Your task to perform on an android device: toggle priority inbox in the gmail app Image 0: 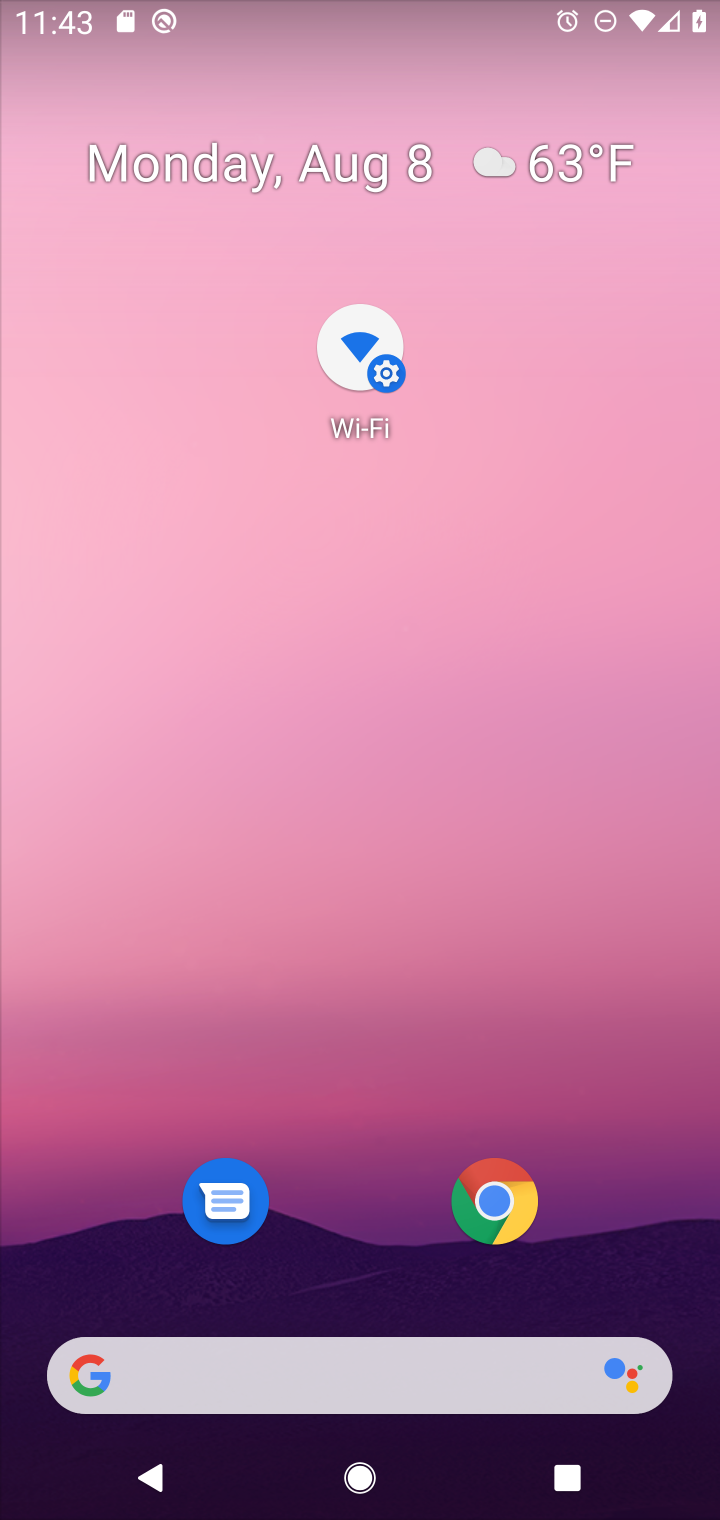
Step 0: press home button
Your task to perform on an android device: toggle priority inbox in the gmail app Image 1: 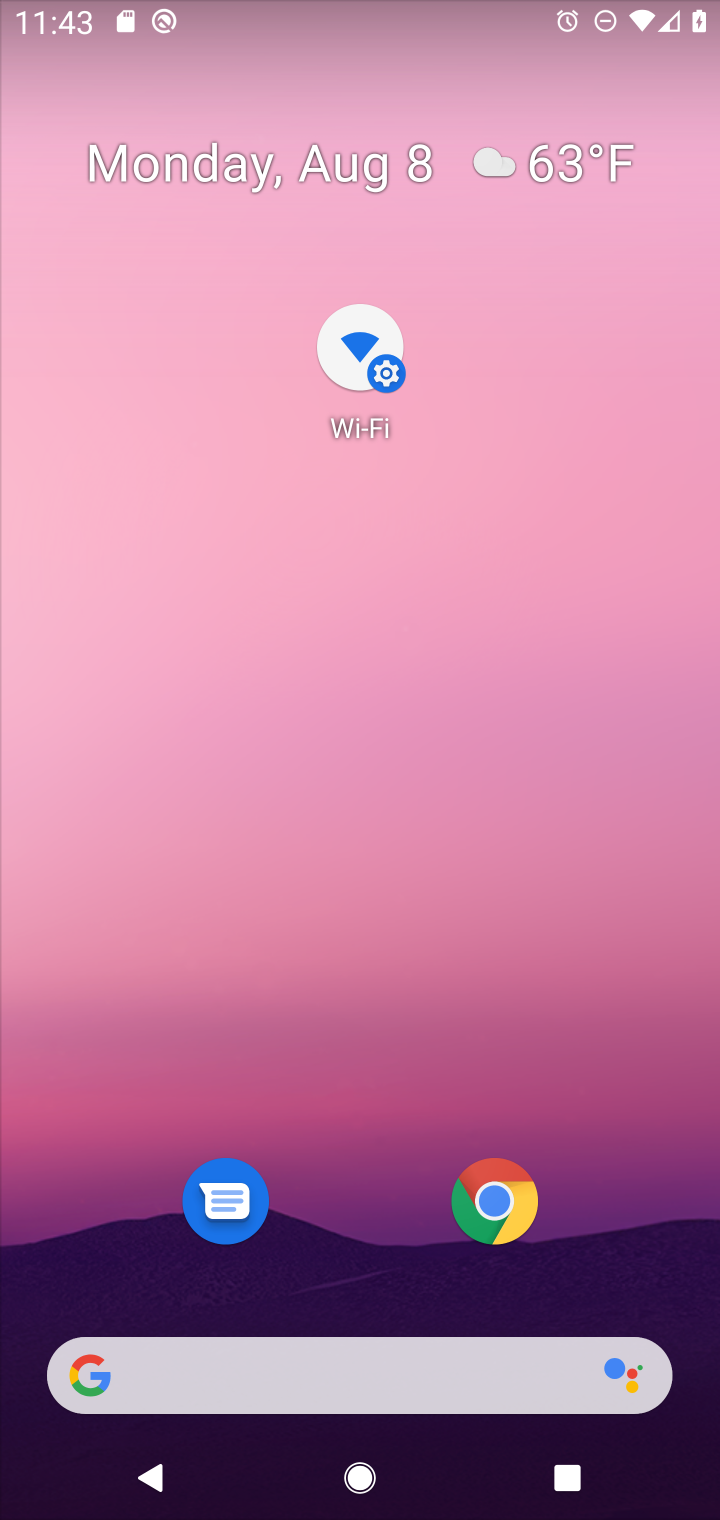
Step 1: drag from (619, 1125) to (658, 166)
Your task to perform on an android device: toggle priority inbox in the gmail app Image 2: 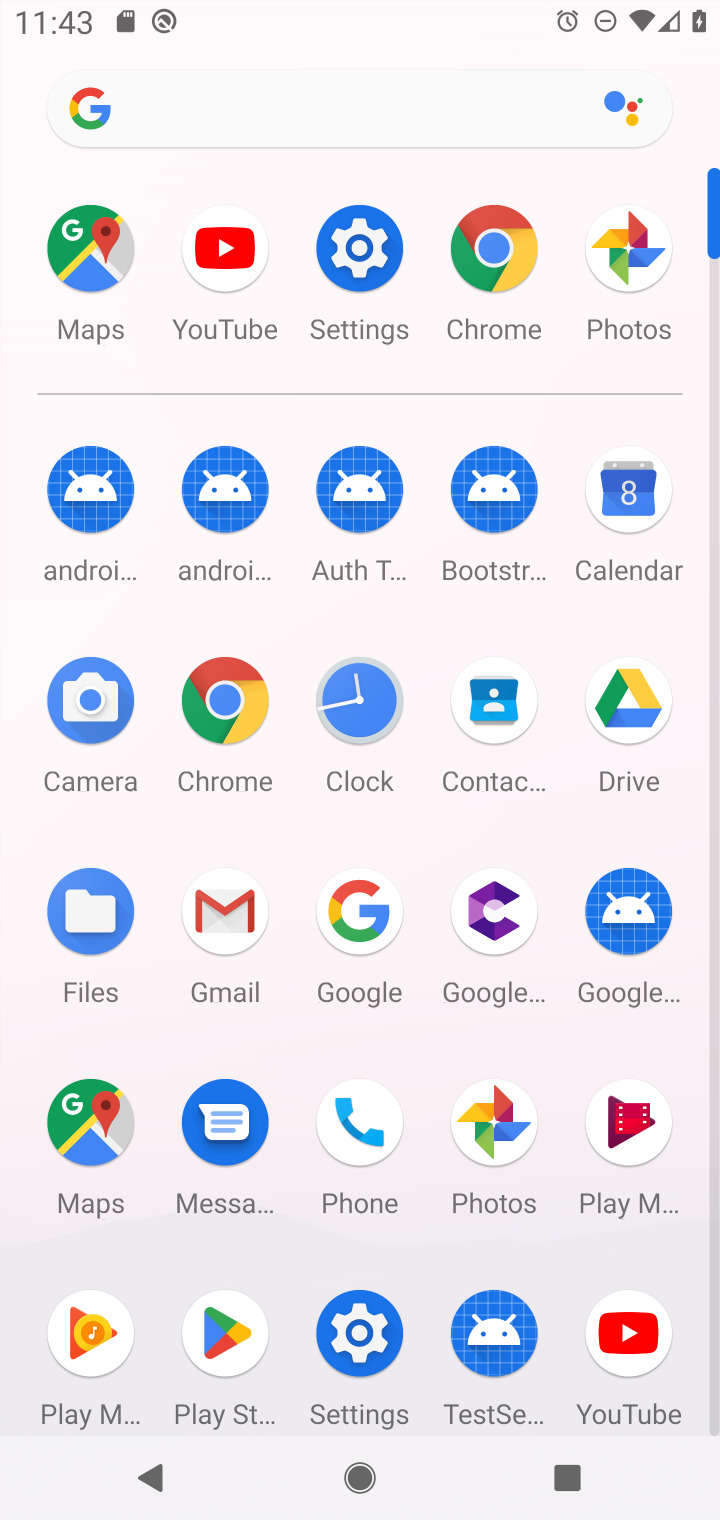
Step 2: click (228, 924)
Your task to perform on an android device: toggle priority inbox in the gmail app Image 3: 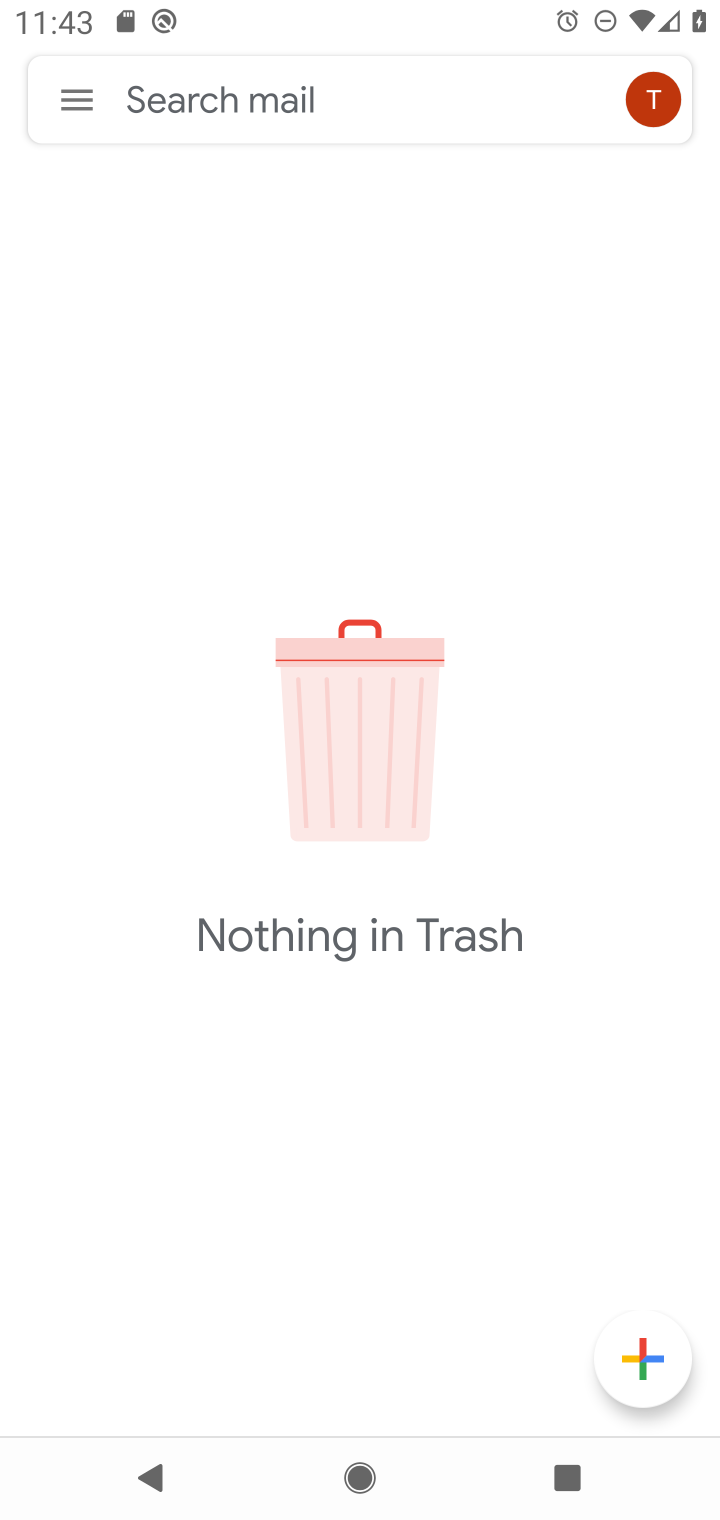
Step 3: click (77, 94)
Your task to perform on an android device: toggle priority inbox in the gmail app Image 4: 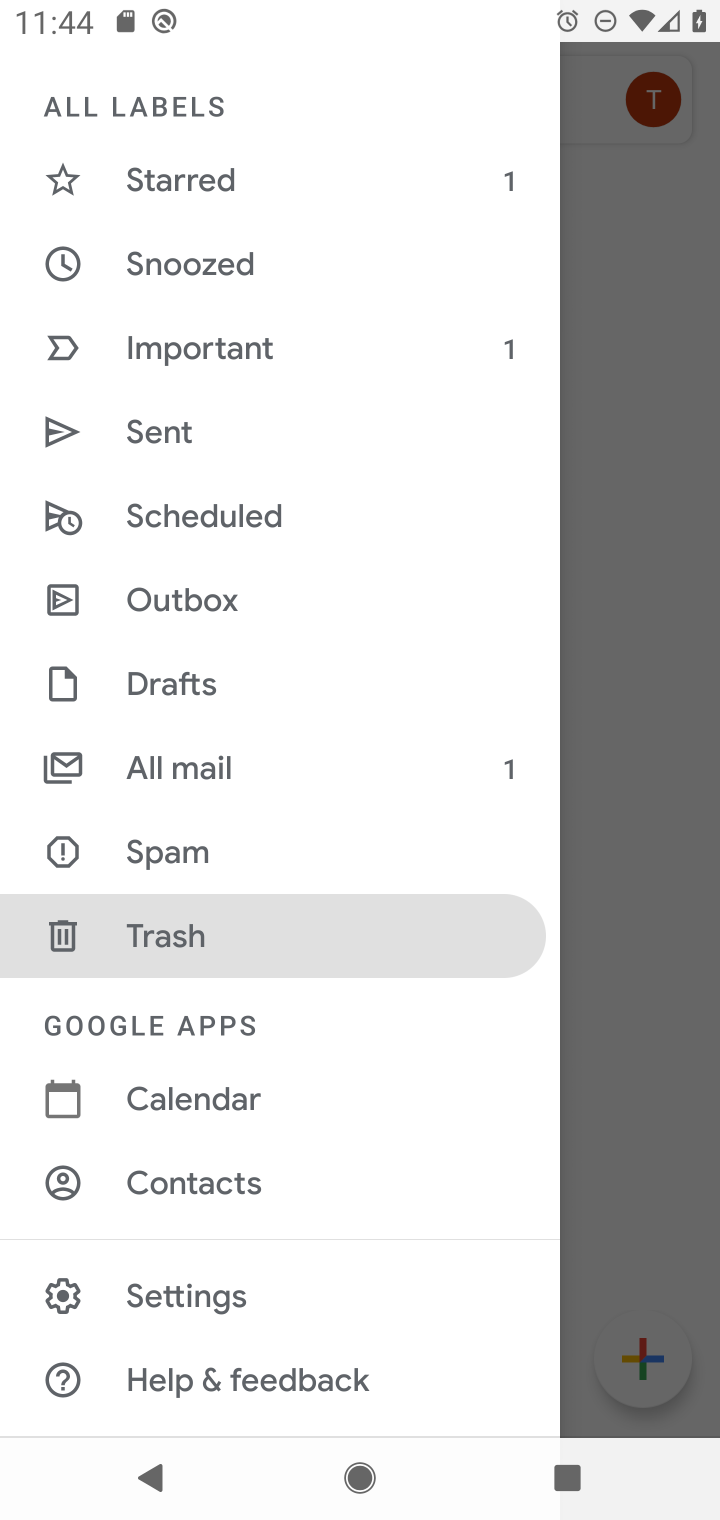
Step 4: drag from (407, 1177) to (405, 730)
Your task to perform on an android device: toggle priority inbox in the gmail app Image 5: 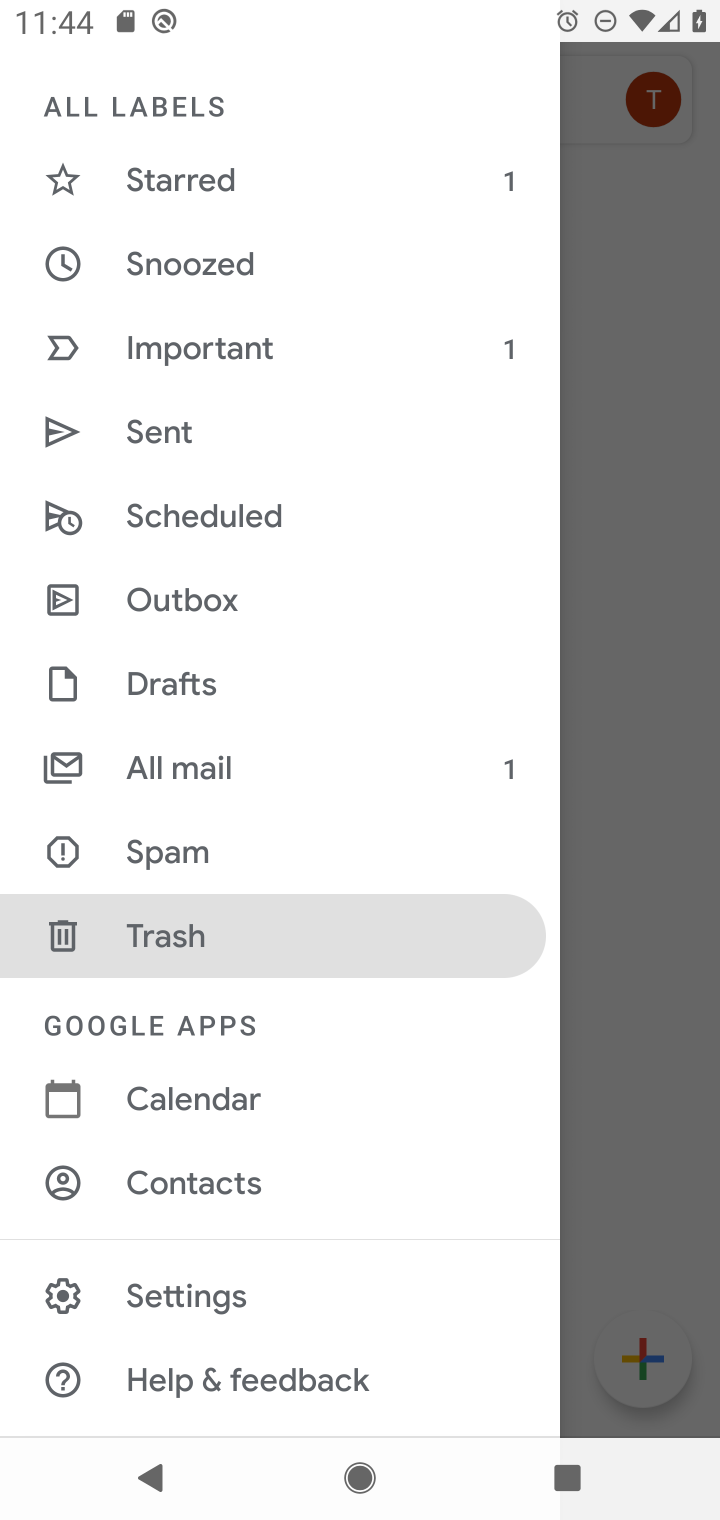
Step 5: click (315, 1301)
Your task to perform on an android device: toggle priority inbox in the gmail app Image 6: 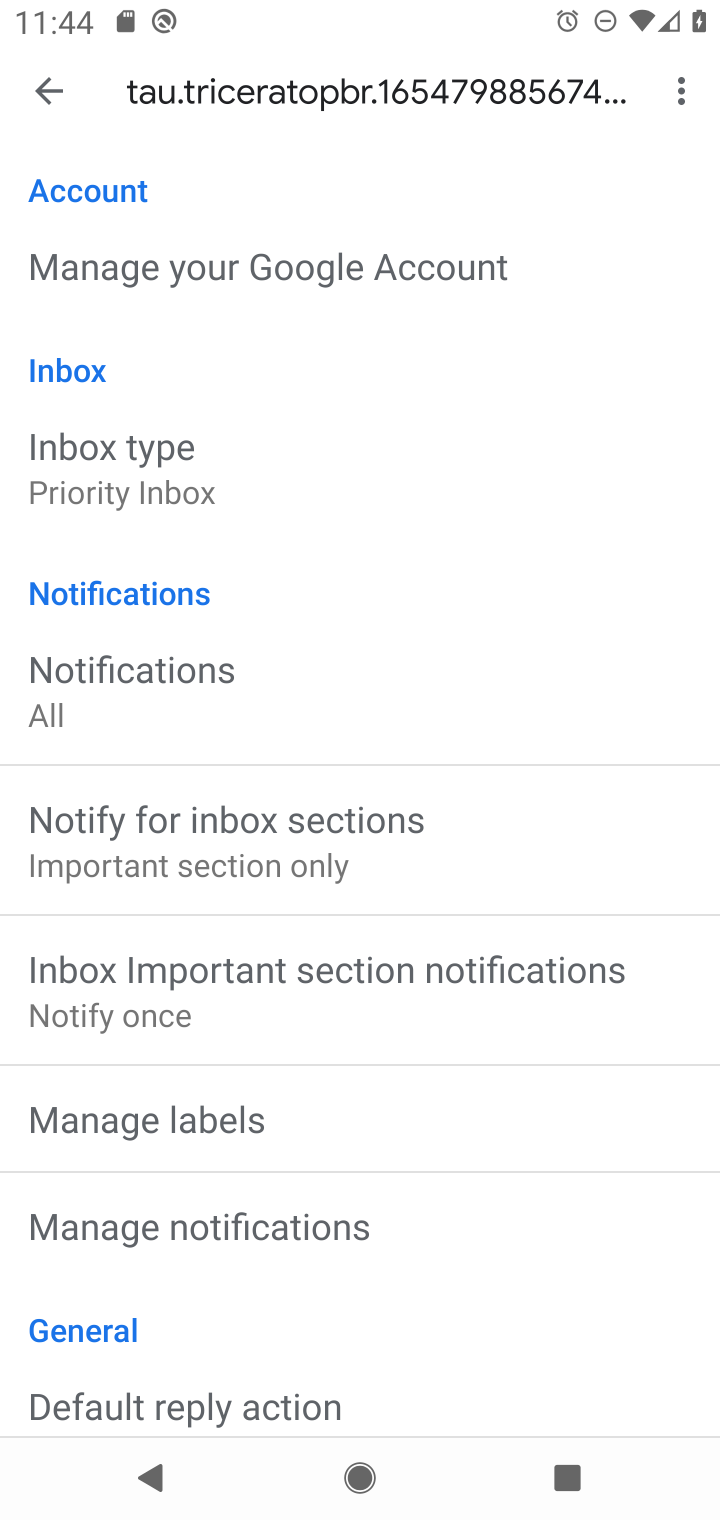
Step 6: drag from (521, 1273) to (547, 733)
Your task to perform on an android device: toggle priority inbox in the gmail app Image 7: 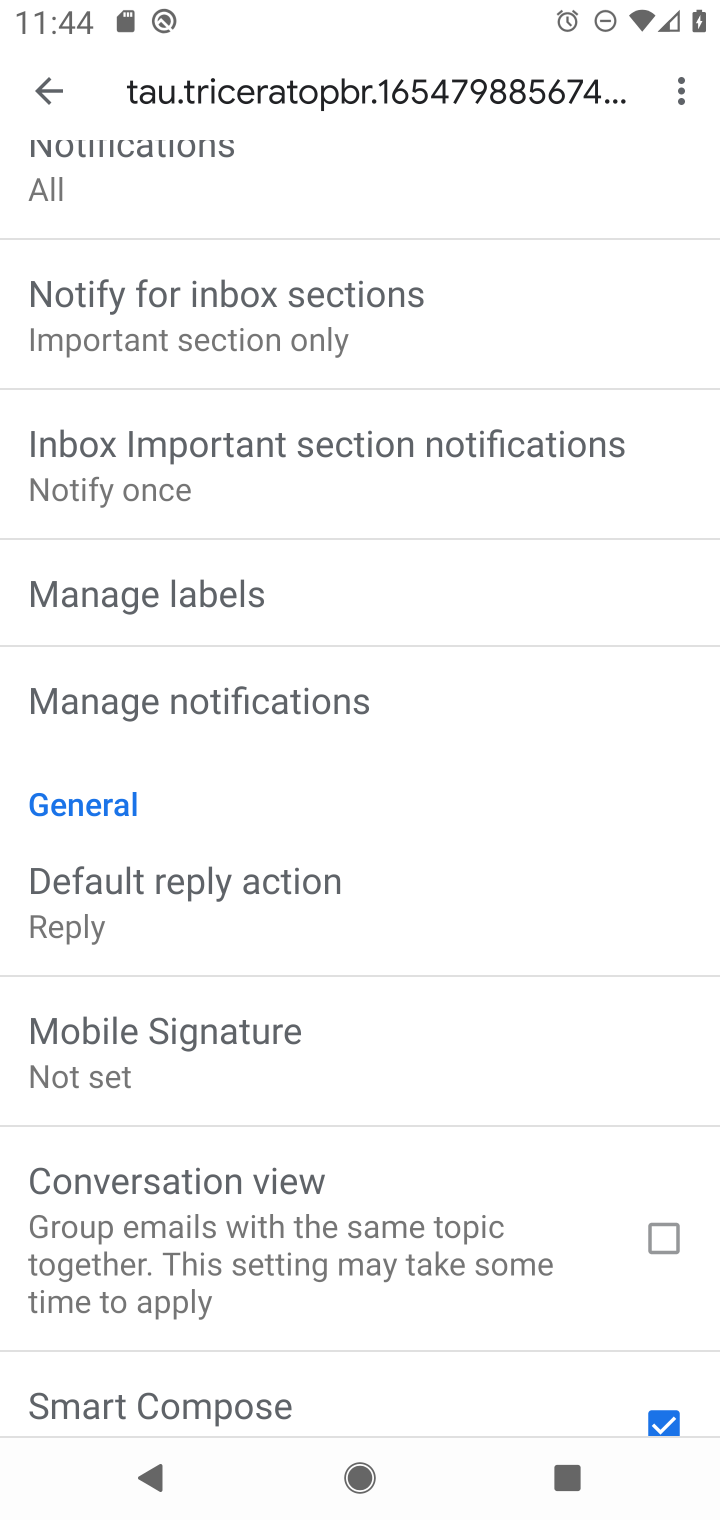
Step 7: drag from (475, 1170) to (537, 670)
Your task to perform on an android device: toggle priority inbox in the gmail app Image 8: 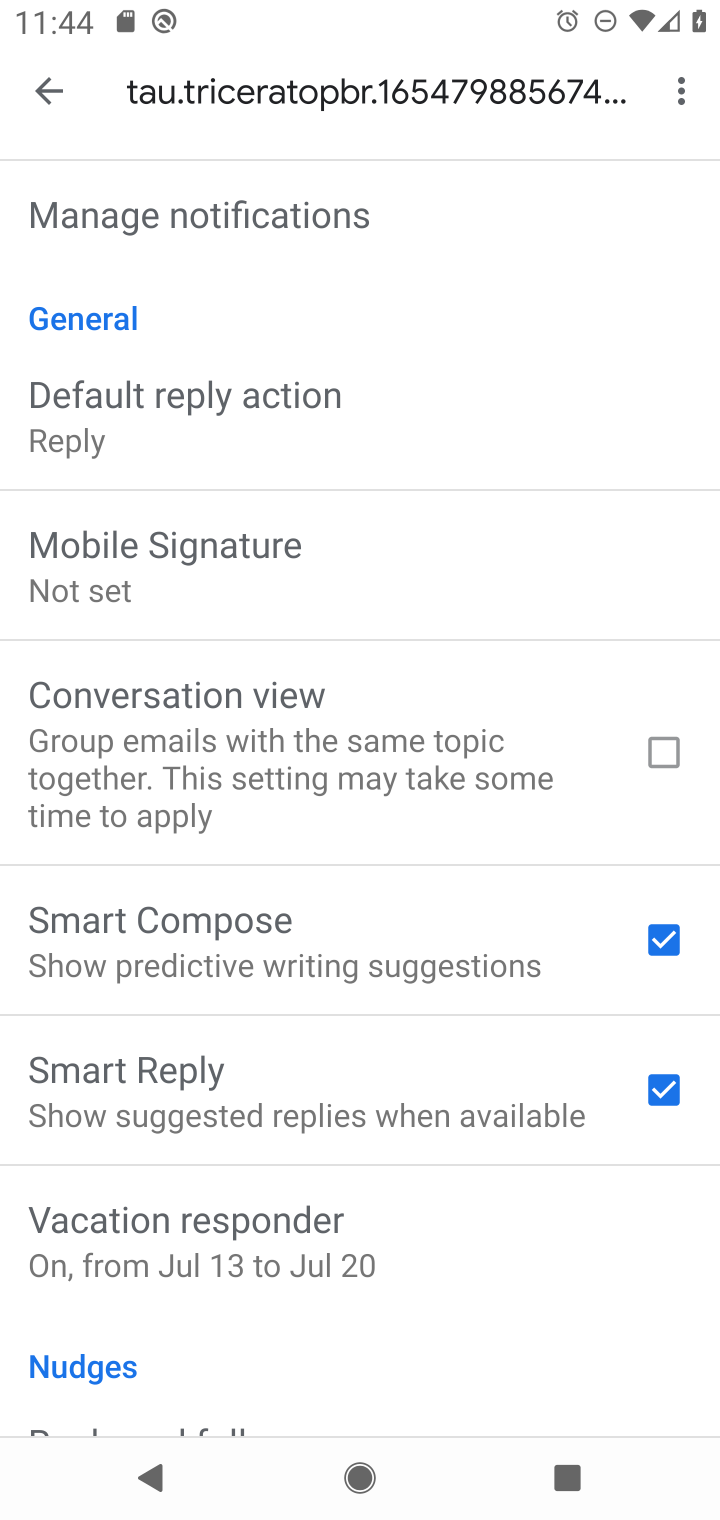
Step 8: drag from (439, 1215) to (457, 700)
Your task to perform on an android device: toggle priority inbox in the gmail app Image 9: 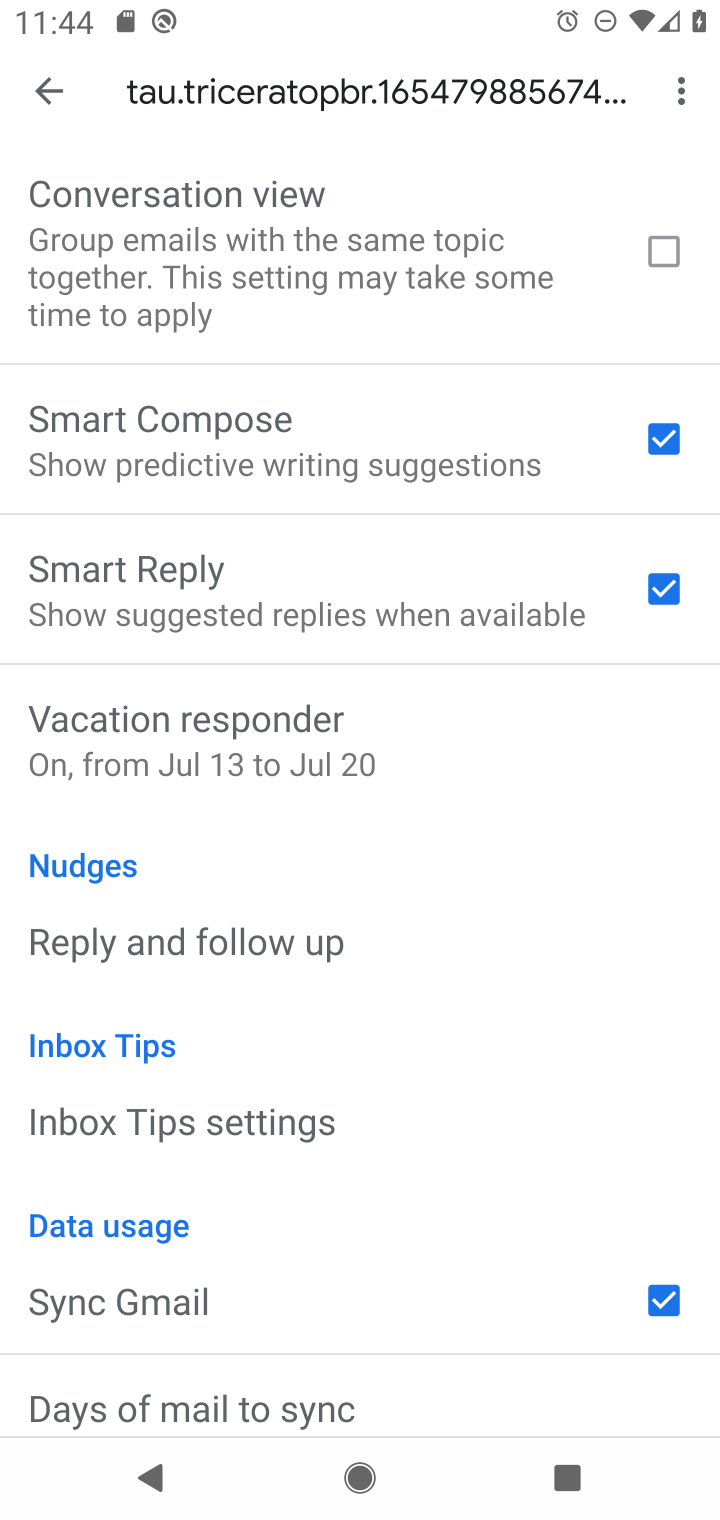
Step 9: drag from (495, 356) to (517, 691)
Your task to perform on an android device: toggle priority inbox in the gmail app Image 10: 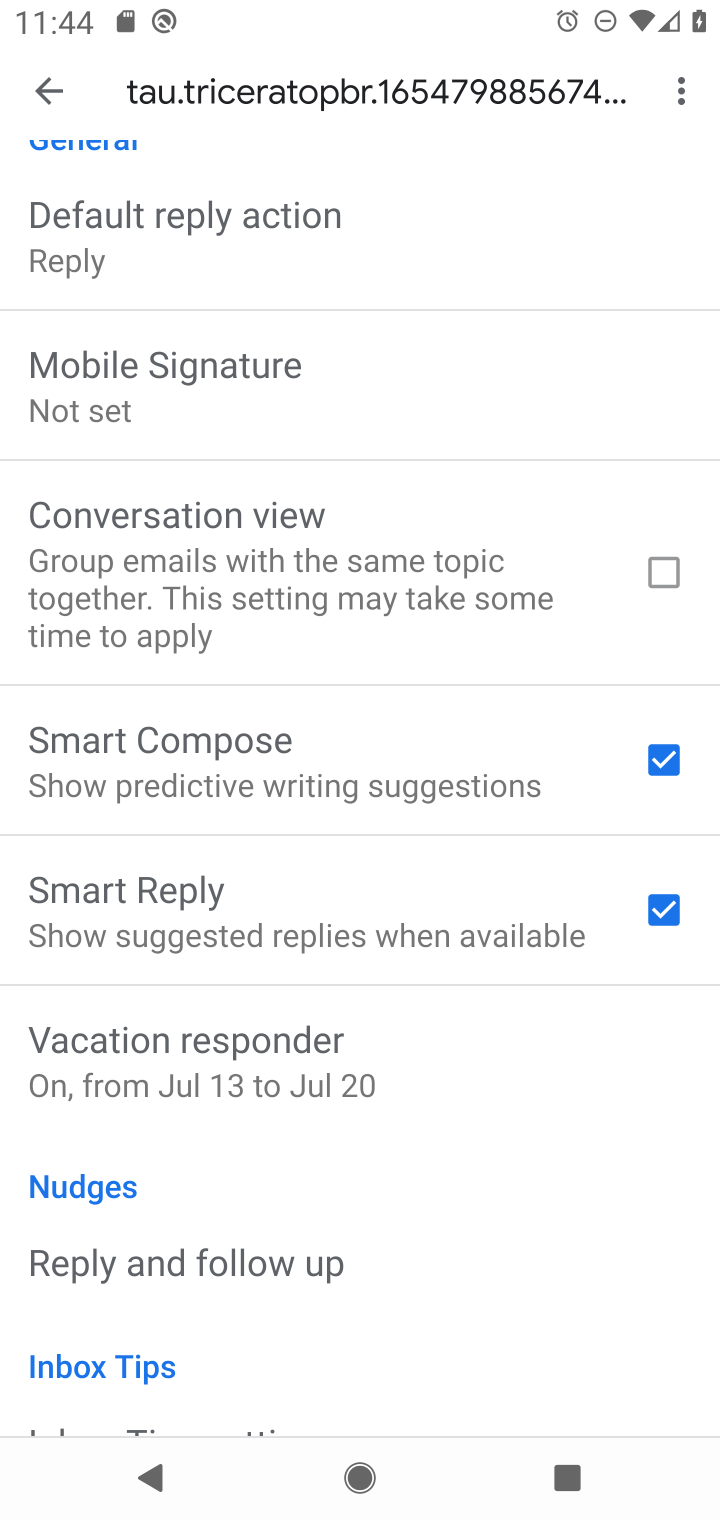
Step 10: drag from (517, 378) to (522, 710)
Your task to perform on an android device: toggle priority inbox in the gmail app Image 11: 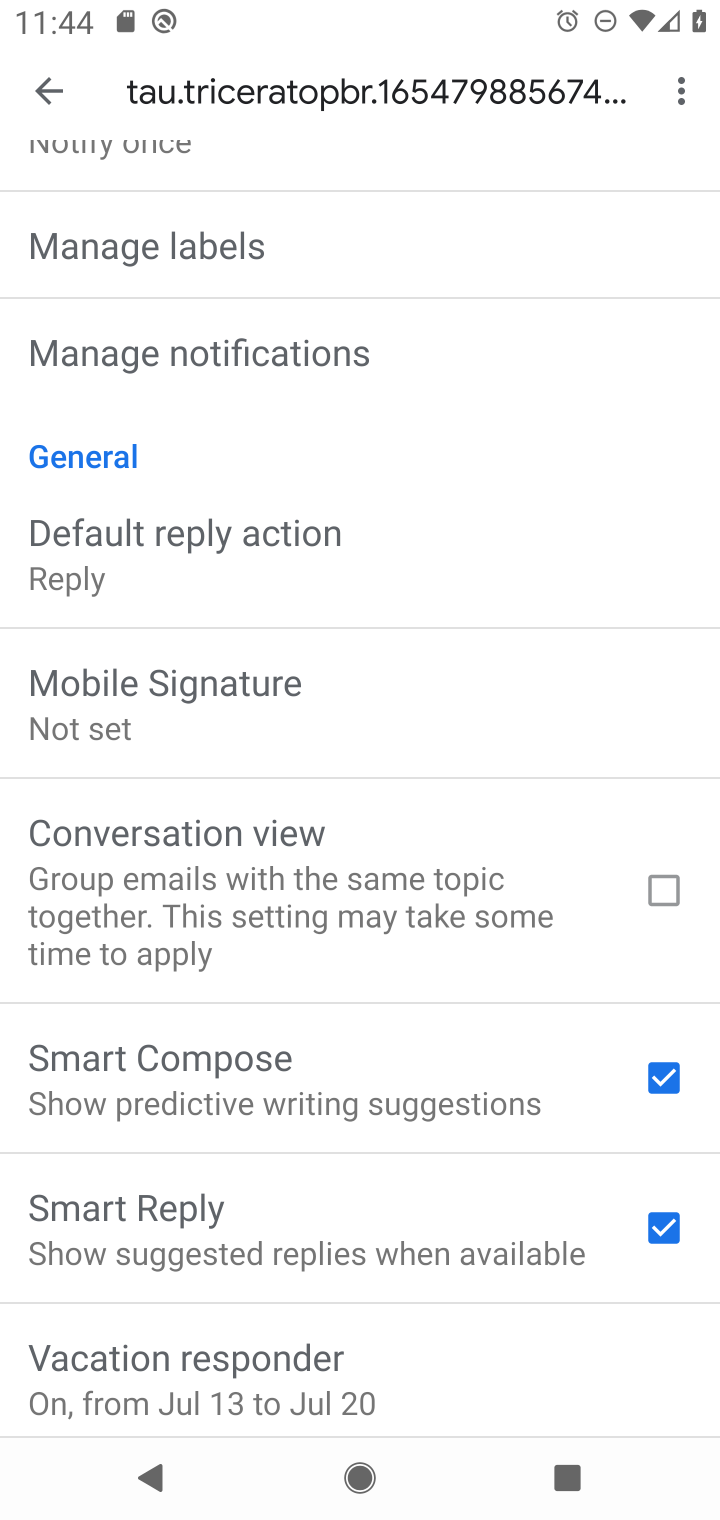
Step 11: drag from (519, 353) to (501, 686)
Your task to perform on an android device: toggle priority inbox in the gmail app Image 12: 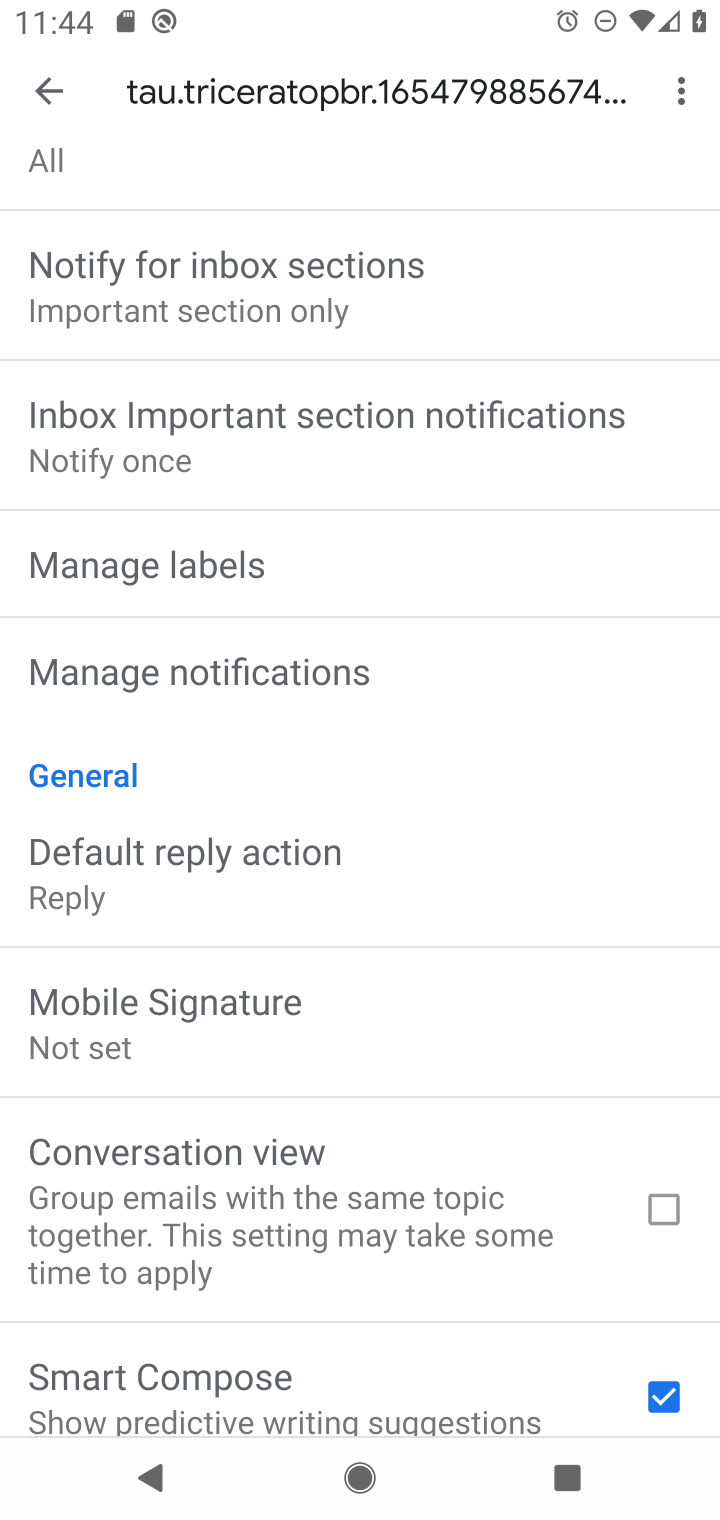
Step 12: drag from (495, 220) to (500, 618)
Your task to perform on an android device: toggle priority inbox in the gmail app Image 13: 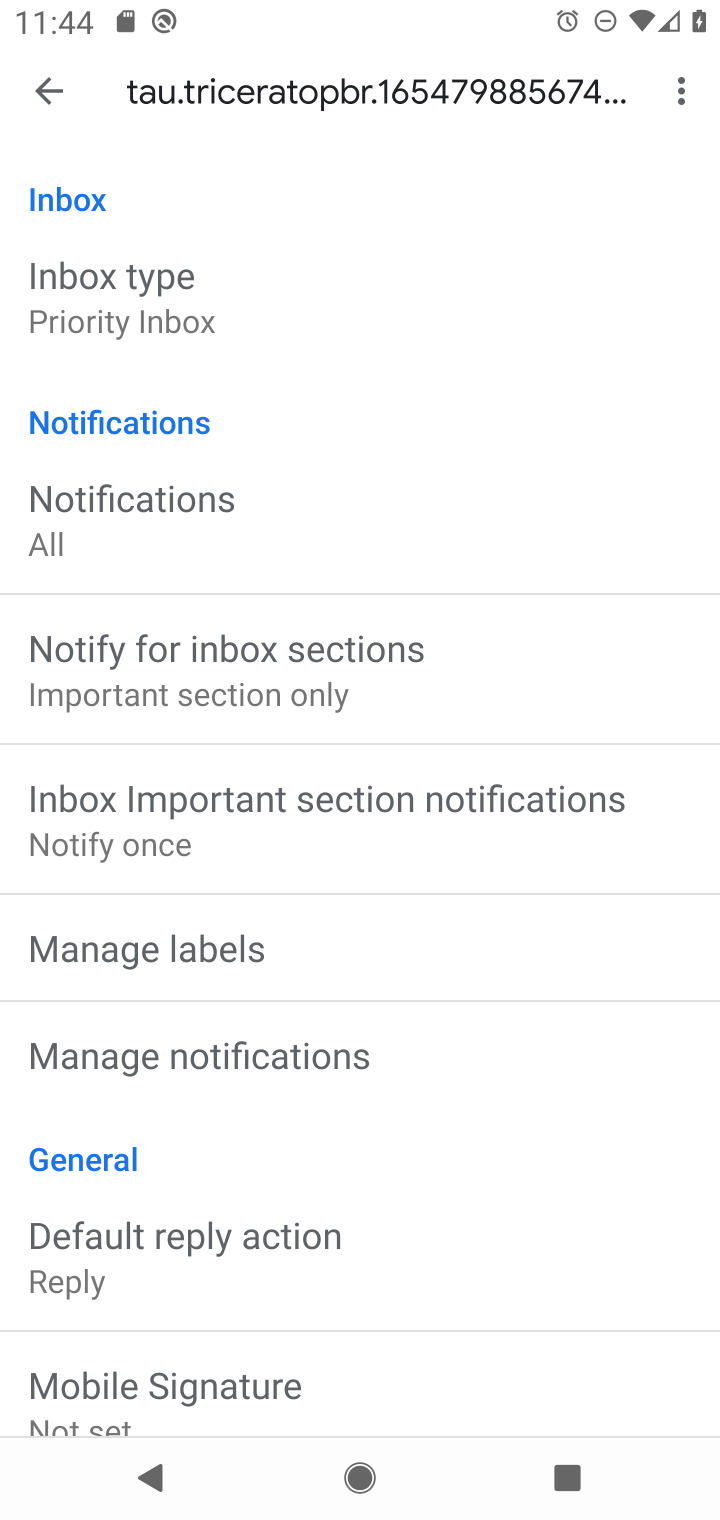
Step 13: drag from (457, 249) to (459, 649)
Your task to perform on an android device: toggle priority inbox in the gmail app Image 14: 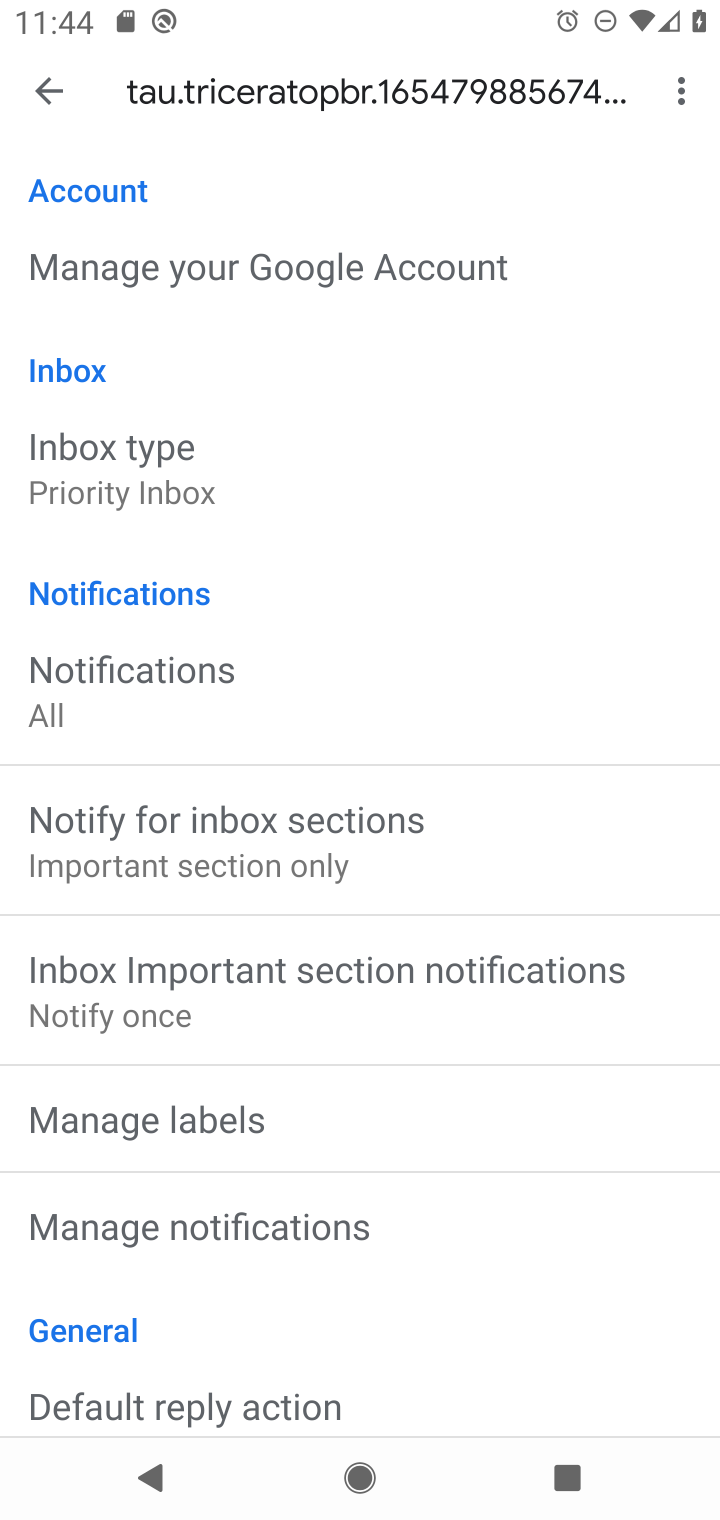
Step 14: press home button
Your task to perform on an android device: toggle priority inbox in the gmail app Image 15: 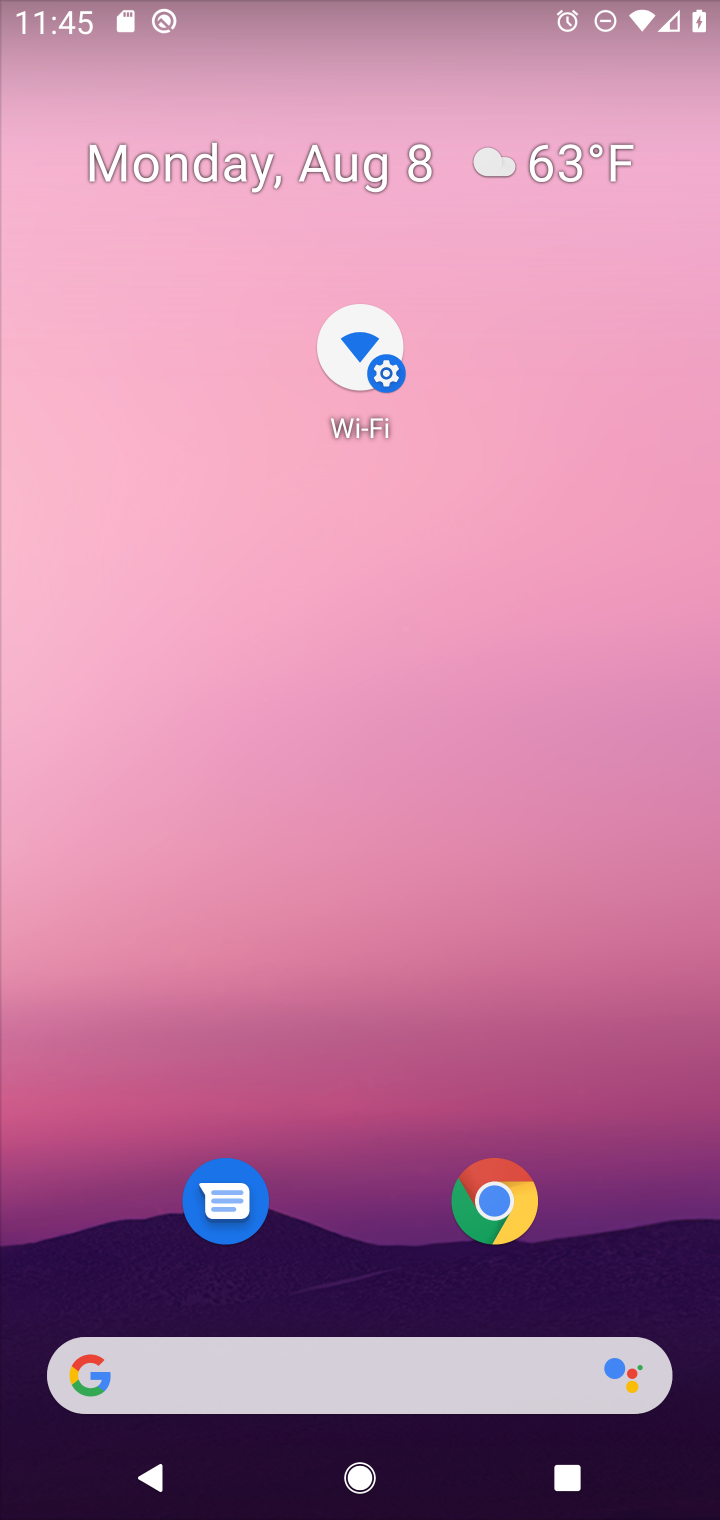
Step 15: drag from (448, 955) to (583, 159)
Your task to perform on an android device: toggle priority inbox in the gmail app Image 16: 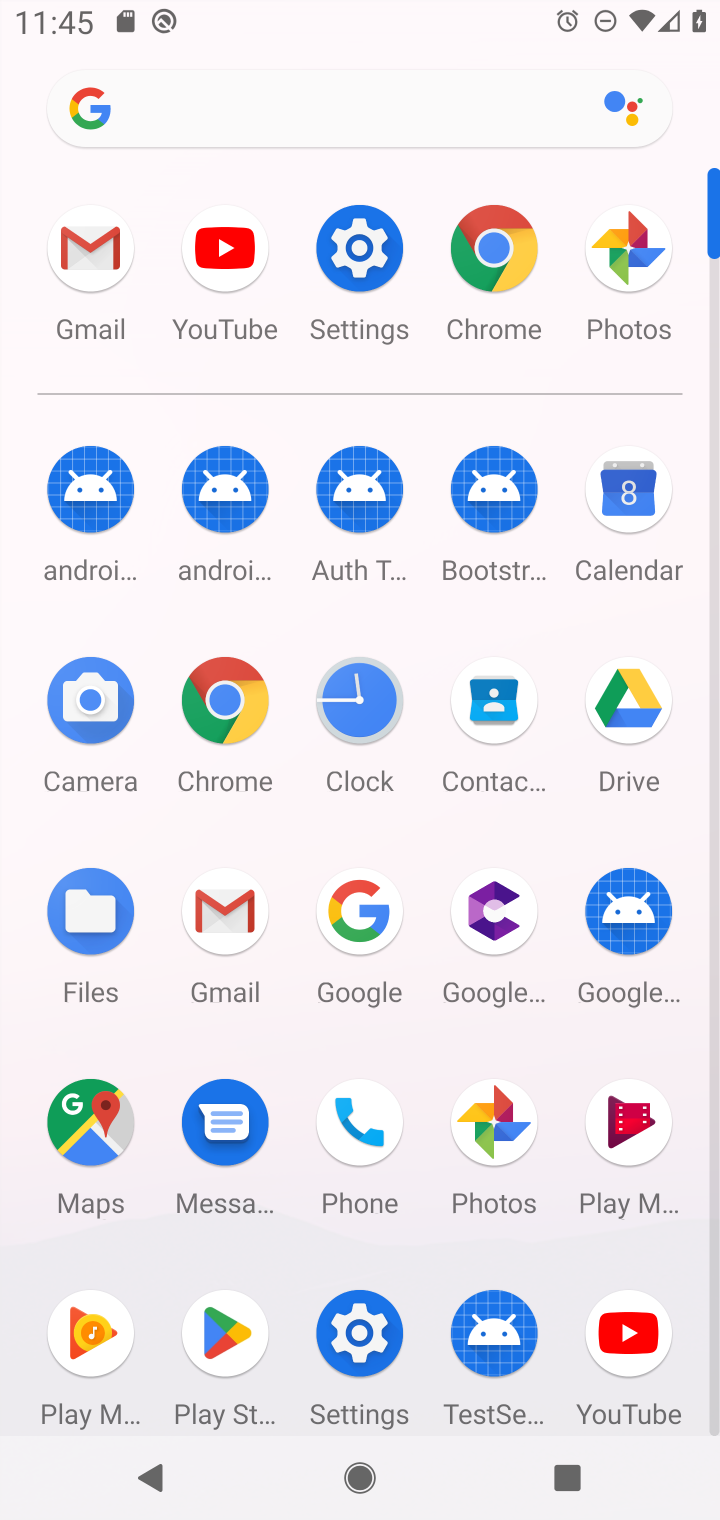
Step 16: click (234, 908)
Your task to perform on an android device: toggle priority inbox in the gmail app Image 17: 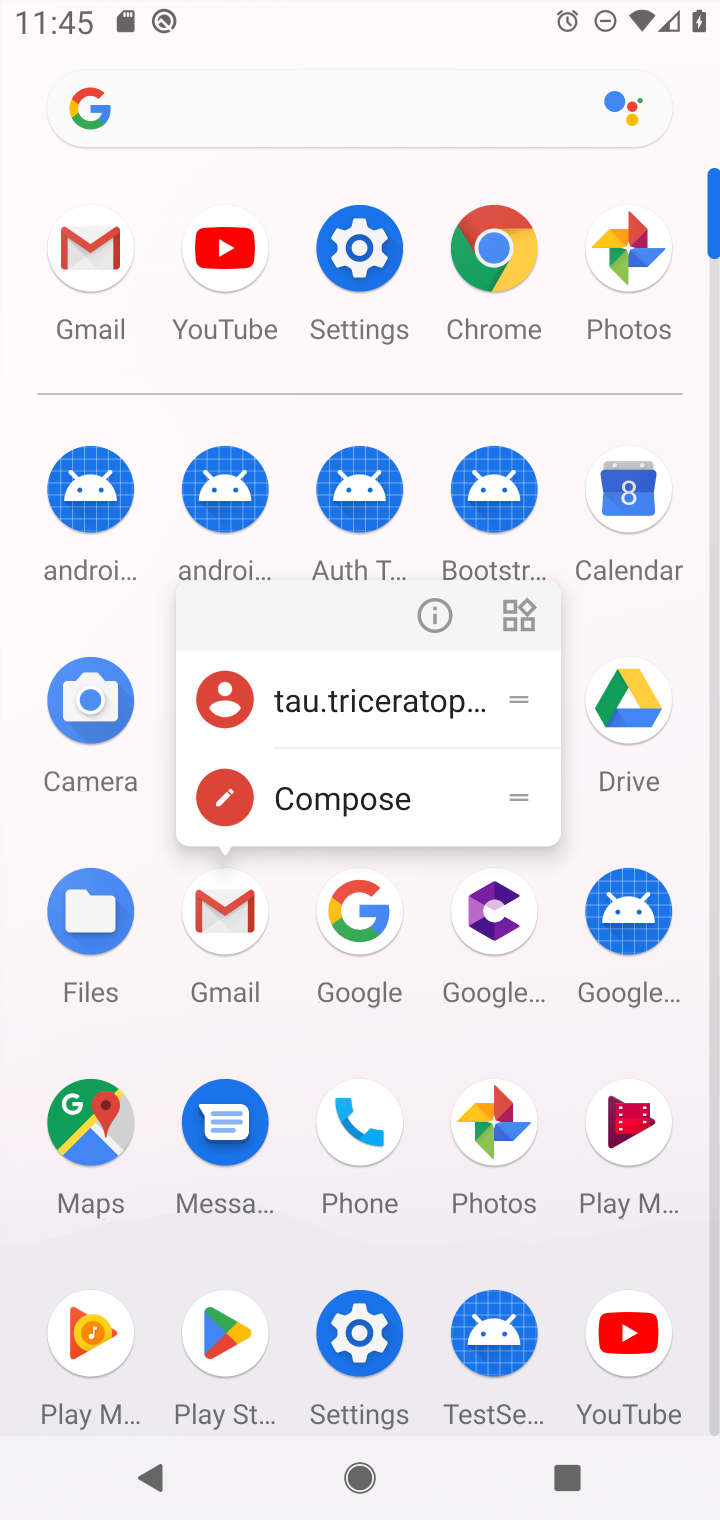
Step 17: click (205, 902)
Your task to perform on an android device: toggle priority inbox in the gmail app Image 18: 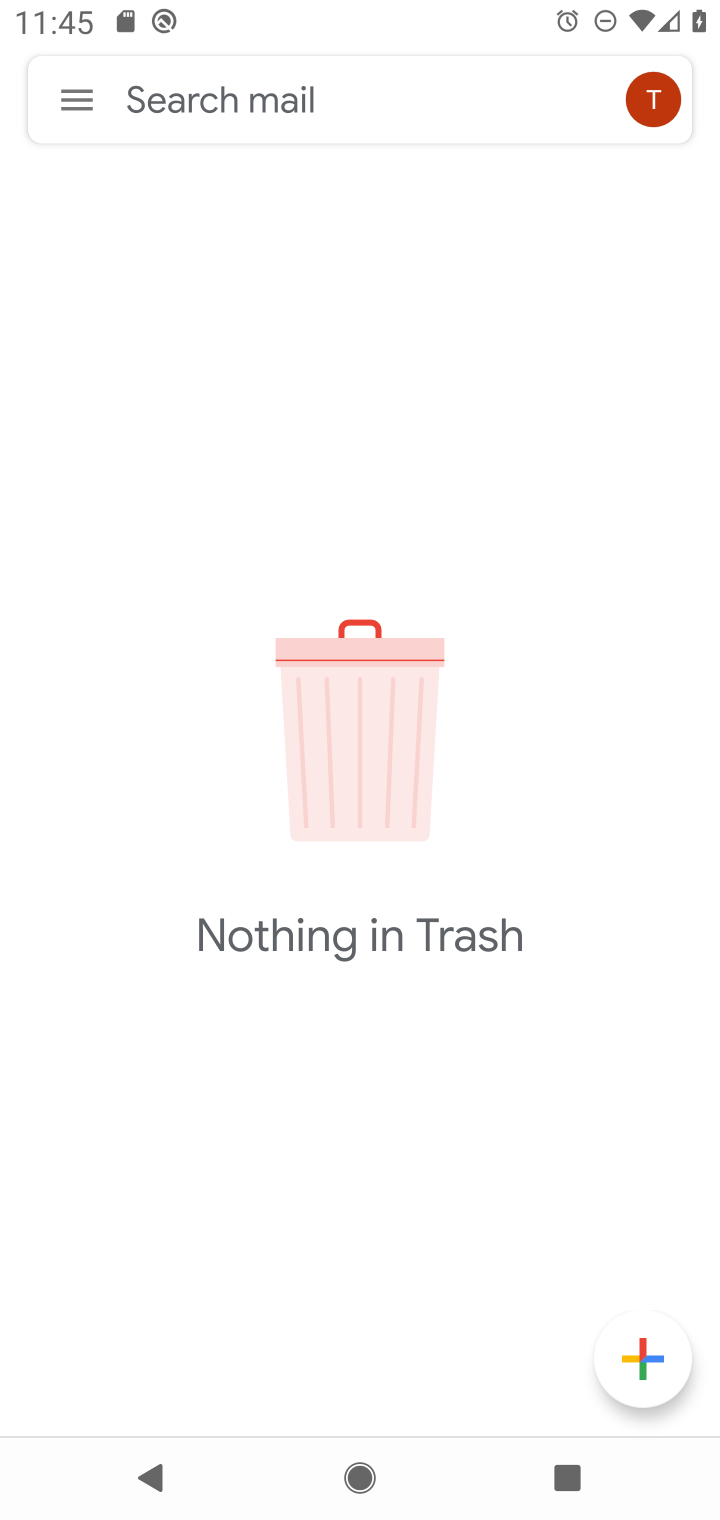
Step 18: click (79, 83)
Your task to perform on an android device: toggle priority inbox in the gmail app Image 19: 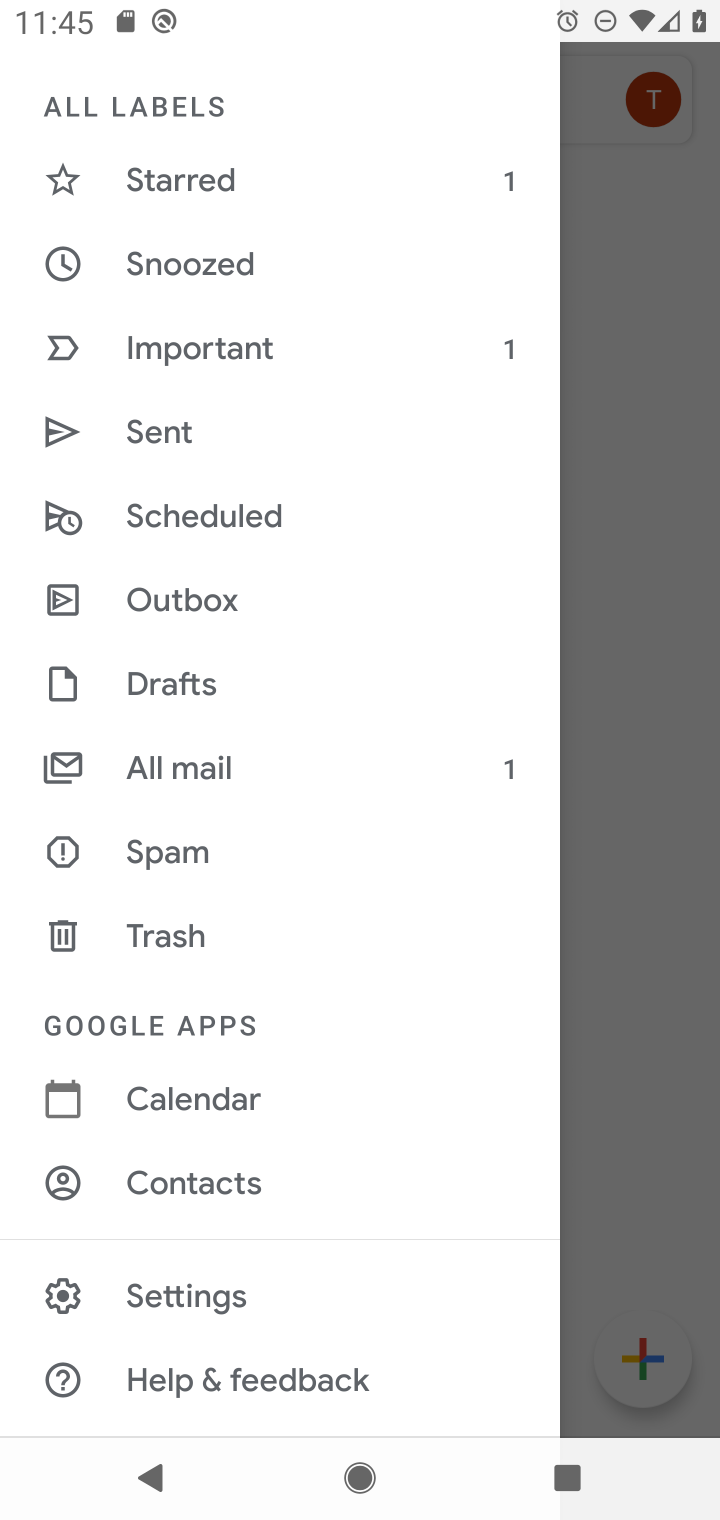
Step 19: drag from (364, 1103) to (372, 659)
Your task to perform on an android device: toggle priority inbox in the gmail app Image 20: 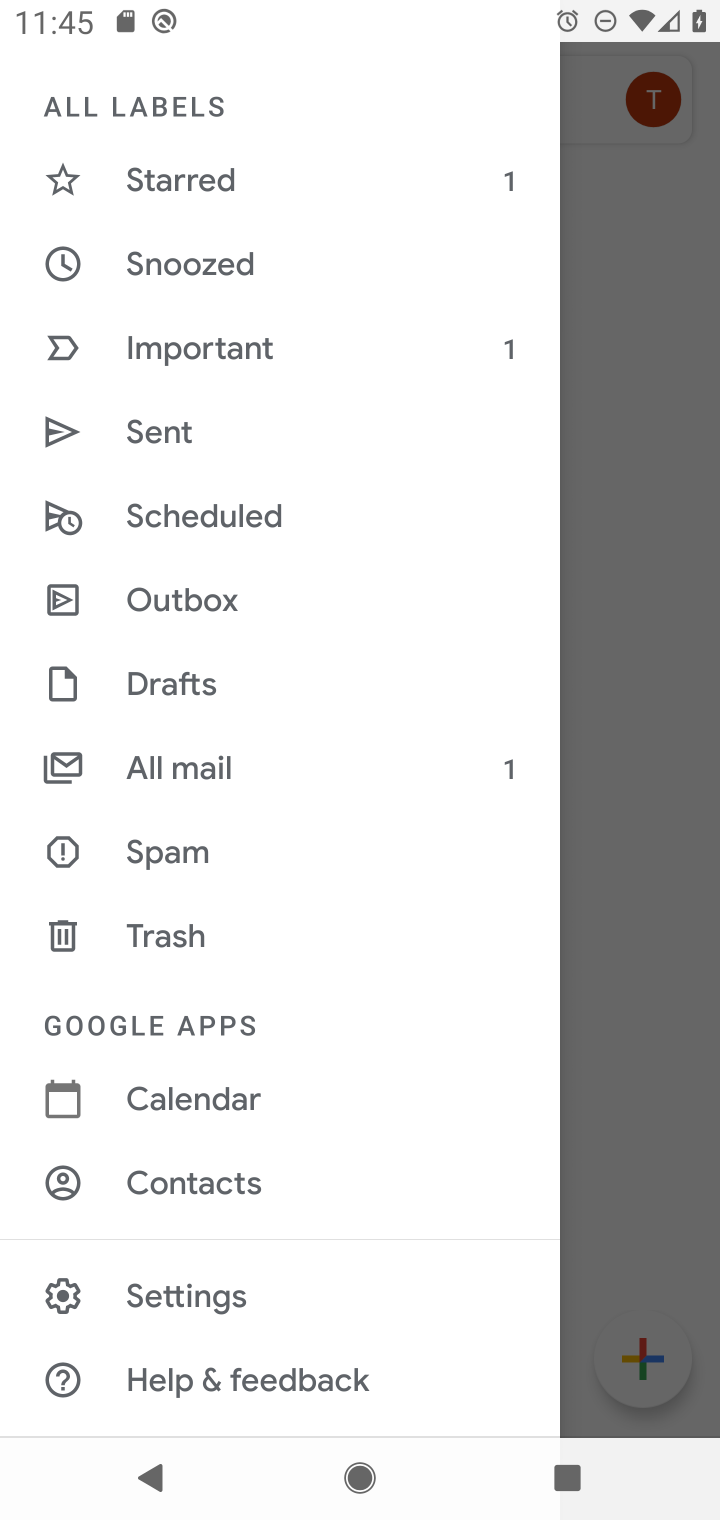
Step 20: click (251, 1285)
Your task to perform on an android device: toggle priority inbox in the gmail app Image 21: 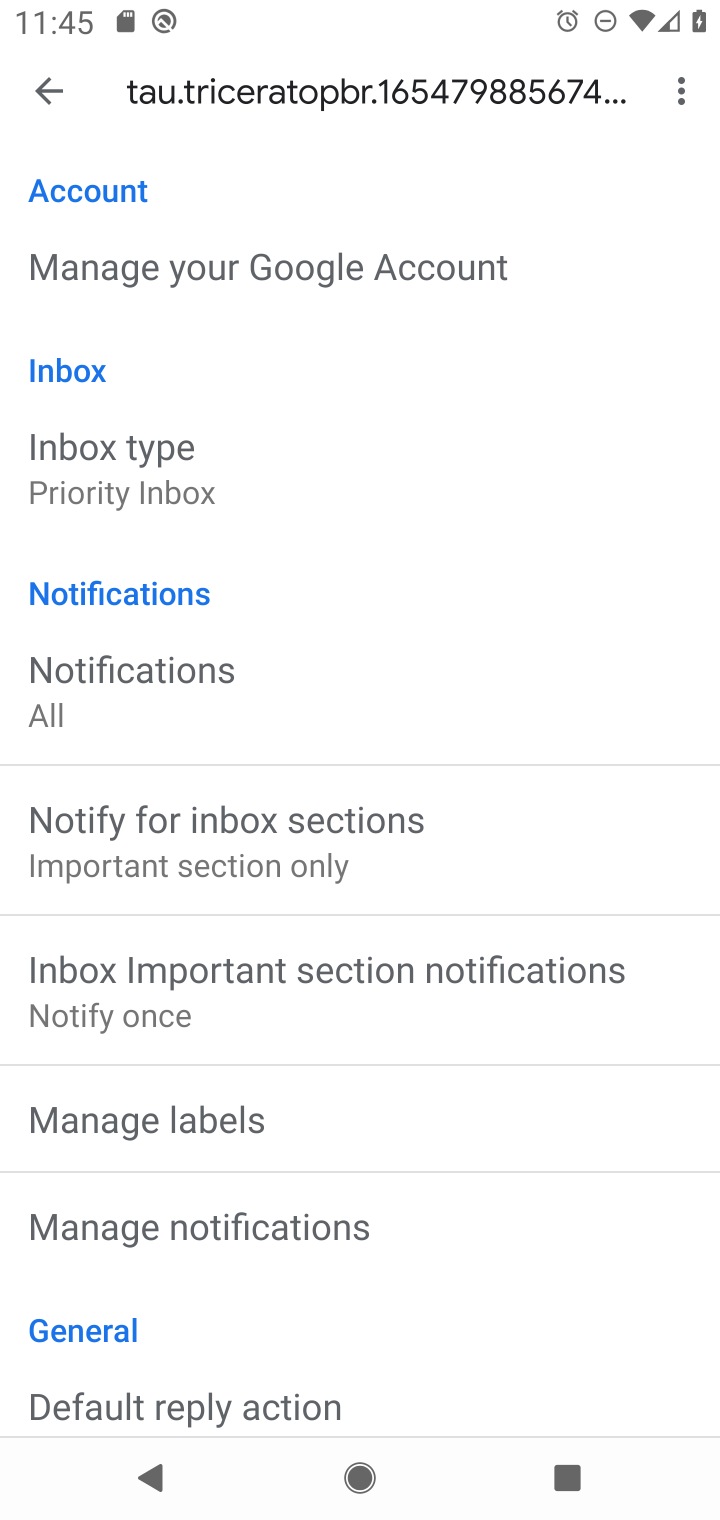
Step 21: task complete